Your task to perform on an android device: Open Google Chrome Image 0: 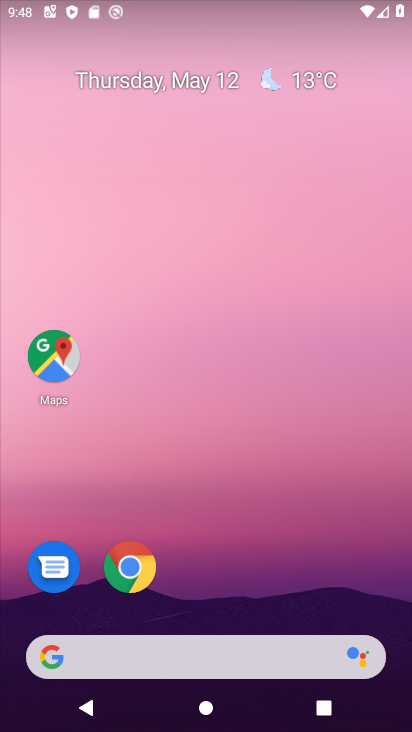
Step 0: click (139, 575)
Your task to perform on an android device: Open Google Chrome Image 1: 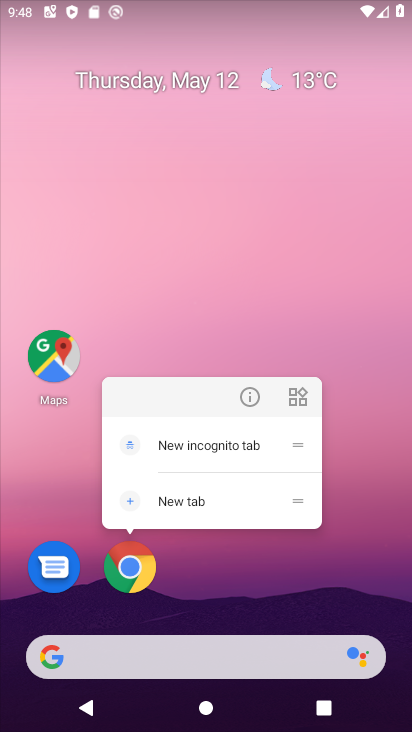
Step 1: click (139, 575)
Your task to perform on an android device: Open Google Chrome Image 2: 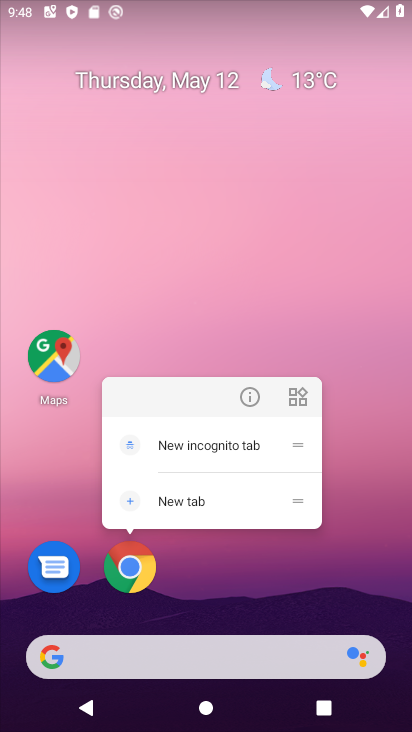
Step 2: click (128, 569)
Your task to perform on an android device: Open Google Chrome Image 3: 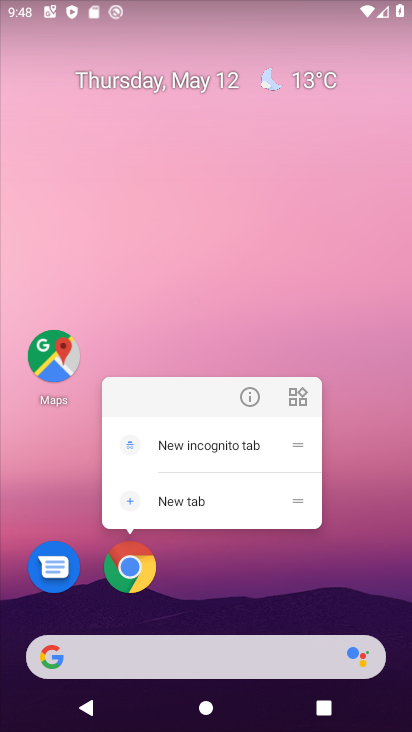
Step 3: click (128, 569)
Your task to perform on an android device: Open Google Chrome Image 4: 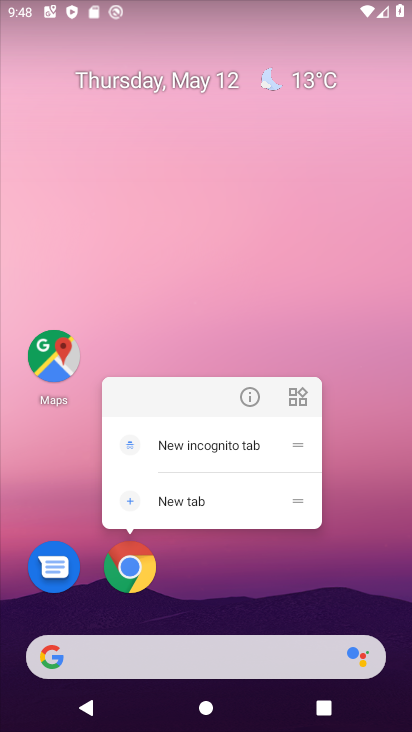
Step 4: click (128, 569)
Your task to perform on an android device: Open Google Chrome Image 5: 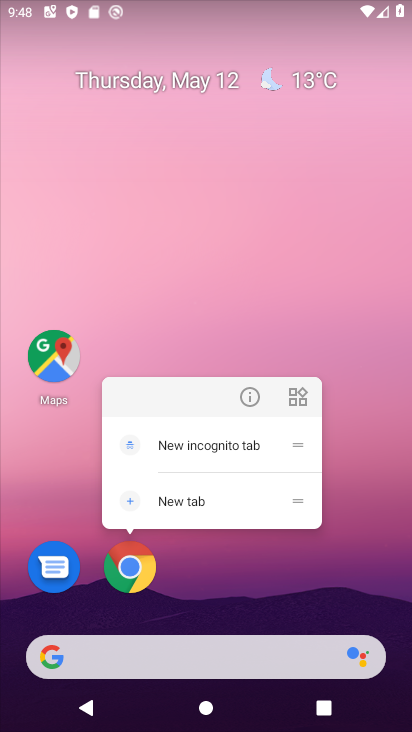
Step 5: click (130, 559)
Your task to perform on an android device: Open Google Chrome Image 6: 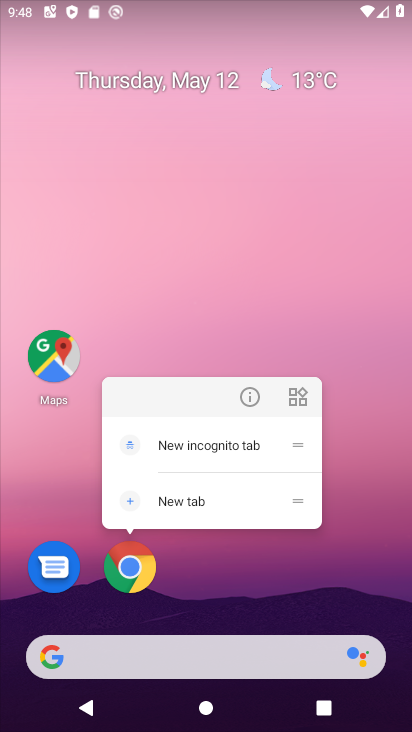
Step 6: click (136, 559)
Your task to perform on an android device: Open Google Chrome Image 7: 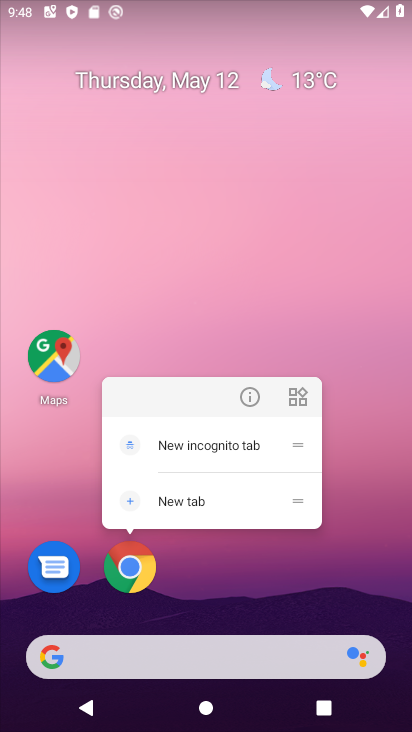
Step 7: click (136, 559)
Your task to perform on an android device: Open Google Chrome Image 8: 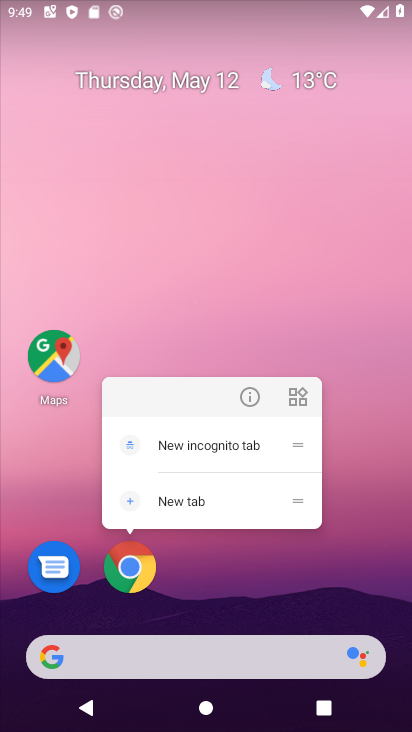
Step 8: click (131, 575)
Your task to perform on an android device: Open Google Chrome Image 9: 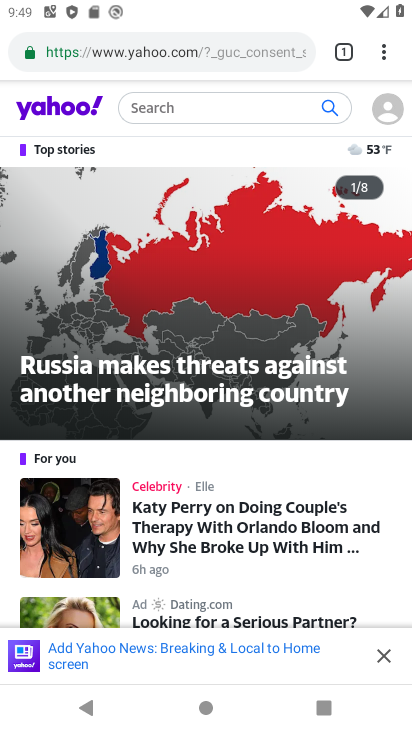
Step 9: task complete